Your task to perform on an android device: Open ESPN.com Image 0: 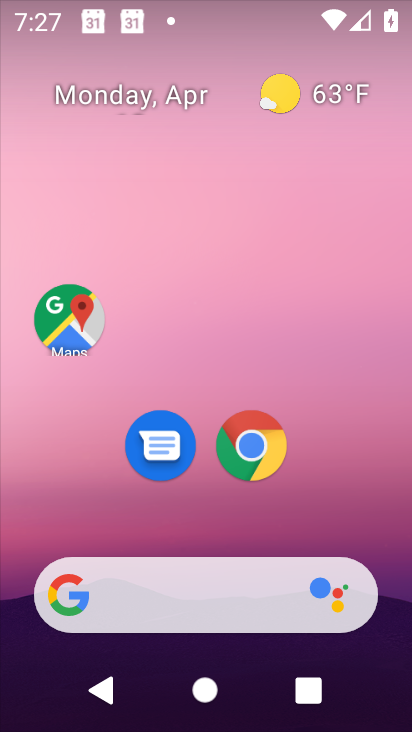
Step 0: click (258, 443)
Your task to perform on an android device: Open ESPN.com Image 1: 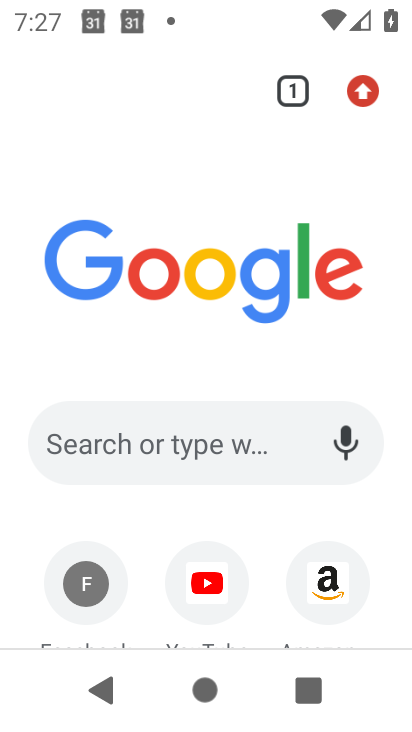
Step 1: click (170, 444)
Your task to perform on an android device: Open ESPN.com Image 2: 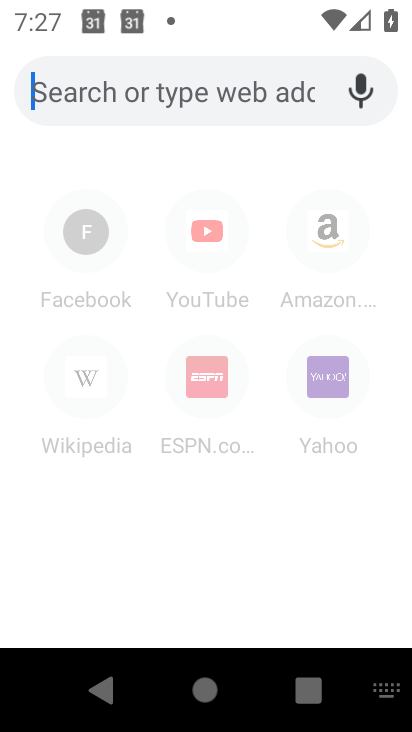
Step 2: type "ESPN.com"
Your task to perform on an android device: Open ESPN.com Image 3: 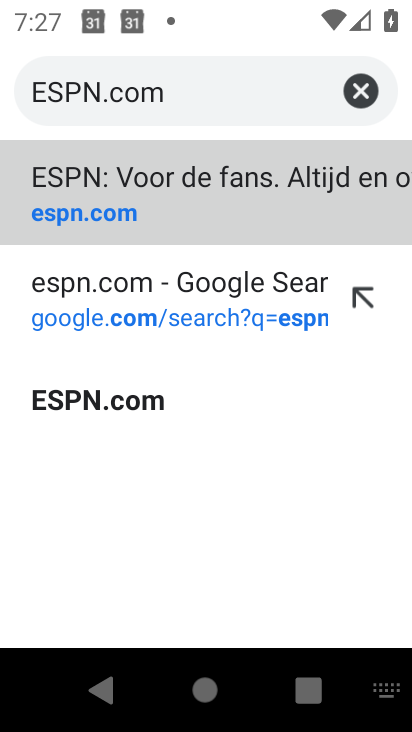
Step 3: click (88, 200)
Your task to perform on an android device: Open ESPN.com Image 4: 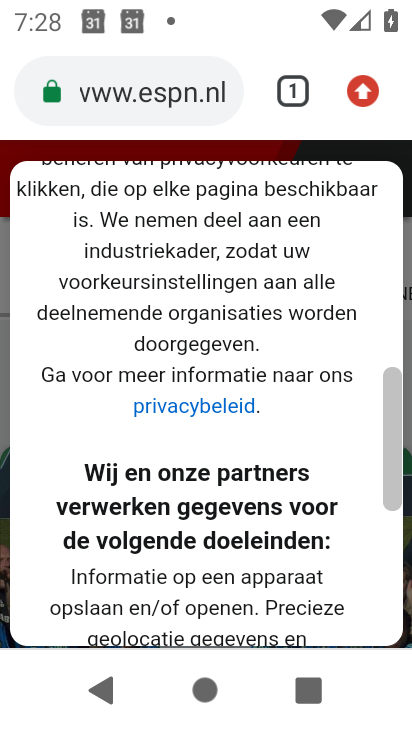
Step 4: task complete